Your task to perform on an android device: turn on the 24-hour format for clock Image 0: 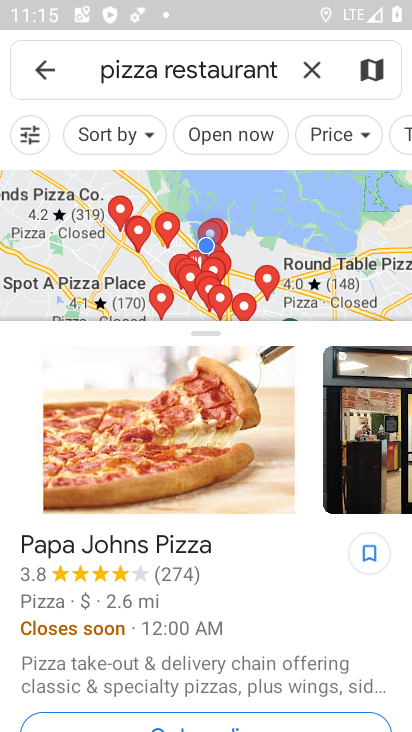
Step 0: press home button
Your task to perform on an android device: turn on the 24-hour format for clock Image 1: 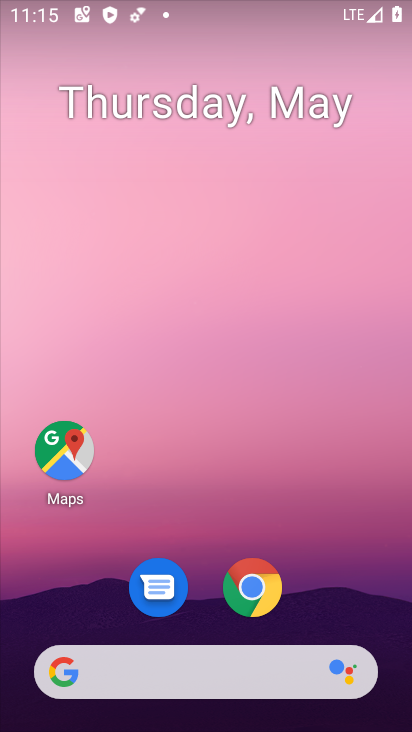
Step 1: drag from (83, 634) to (190, 196)
Your task to perform on an android device: turn on the 24-hour format for clock Image 2: 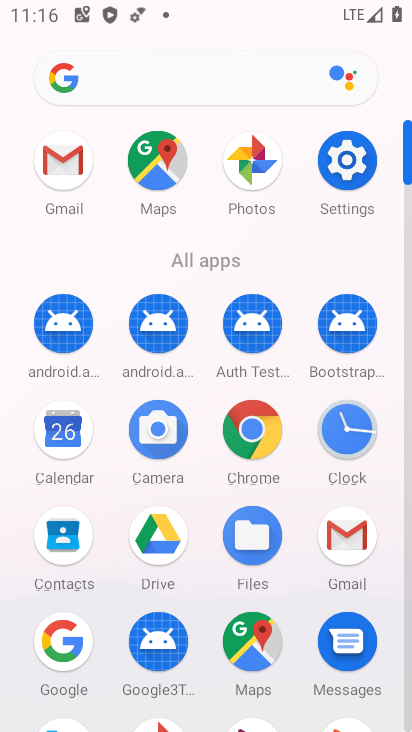
Step 2: click (347, 420)
Your task to perform on an android device: turn on the 24-hour format for clock Image 3: 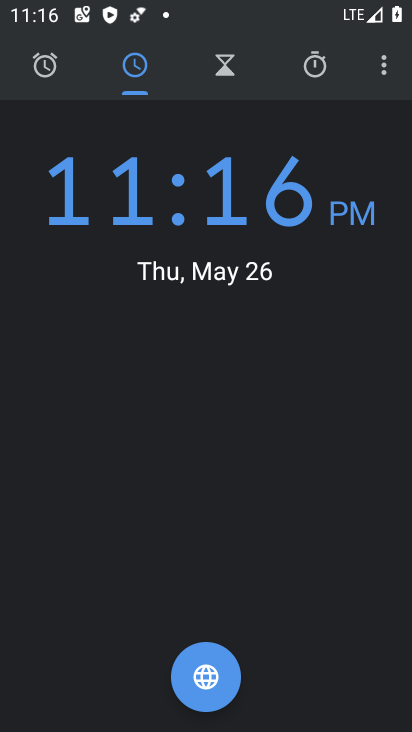
Step 3: click (383, 77)
Your task to perform on an android device: turn on the 24-hour format for clock Image 4: 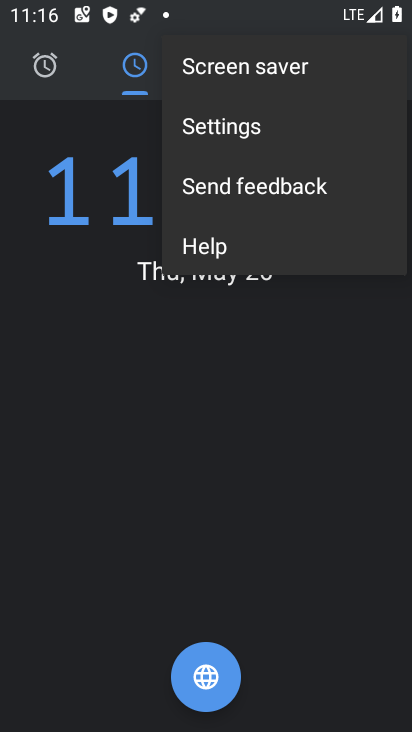
Step 4: click (239, 150)
Your task to perform on an android device: turn on the 24-hour format for clock Image 5: 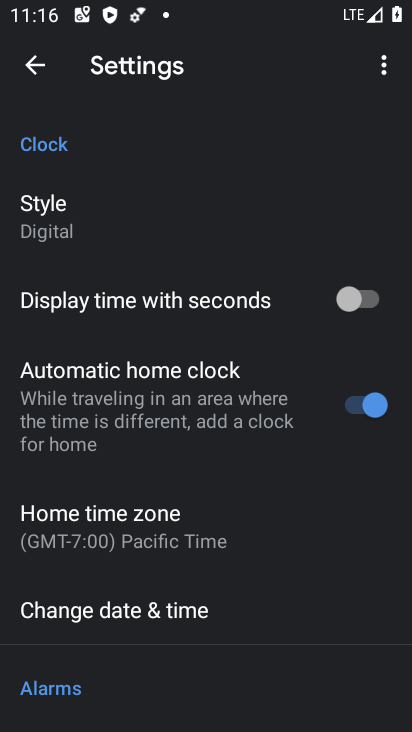
Step 5: click (181, 627)
Your task to perform on an android device: turn on the 24-hour format for clock Image 6: 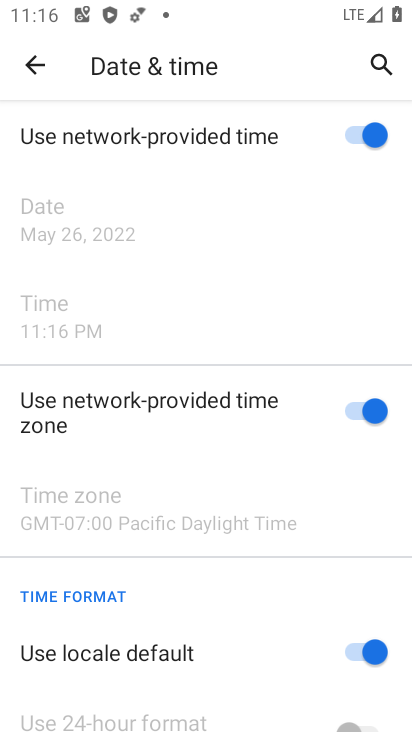
Step 6: drag from (180, 633) to (291, 290)
Your task to perform on an android device: turn on the 24-hour format for clock Image 7: 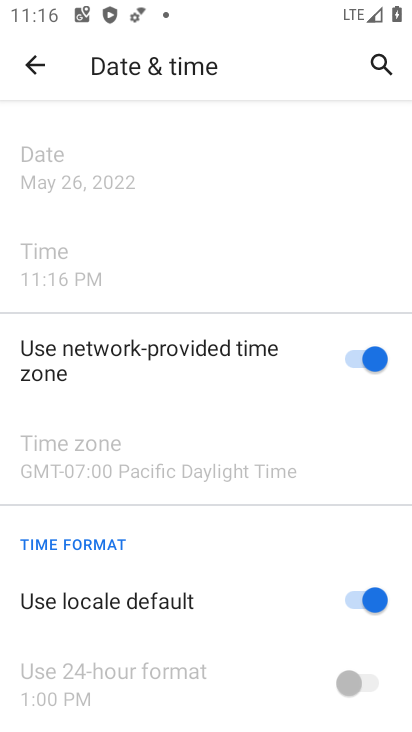
Step 7: click (349, 609)
Your task to perform on an android device: turn on the 24-hour format for clock Image 8: 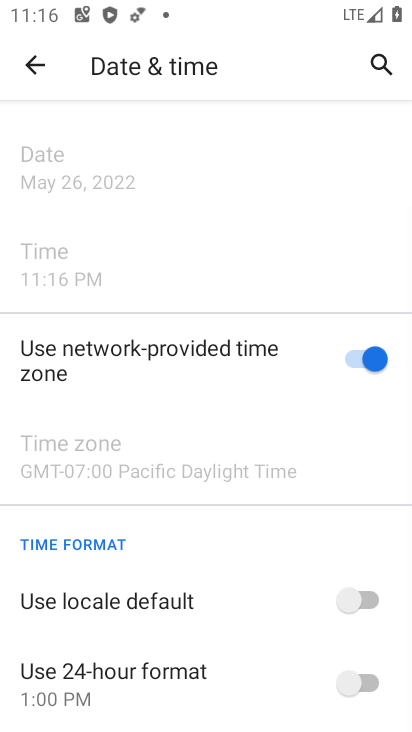
Step 8: click (385, 688)
Your task to perform on an android device: turn on the 24-hour format for clock Image 9: 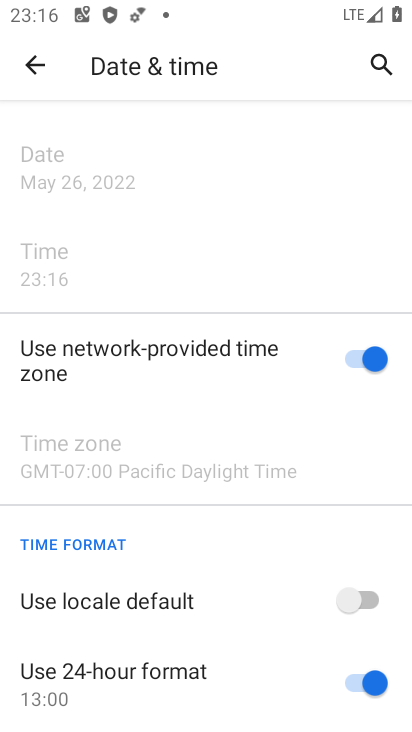
Step 9: task complete